Your task to perform on an android device: Show me productivity apps on the Play Store Image 0: 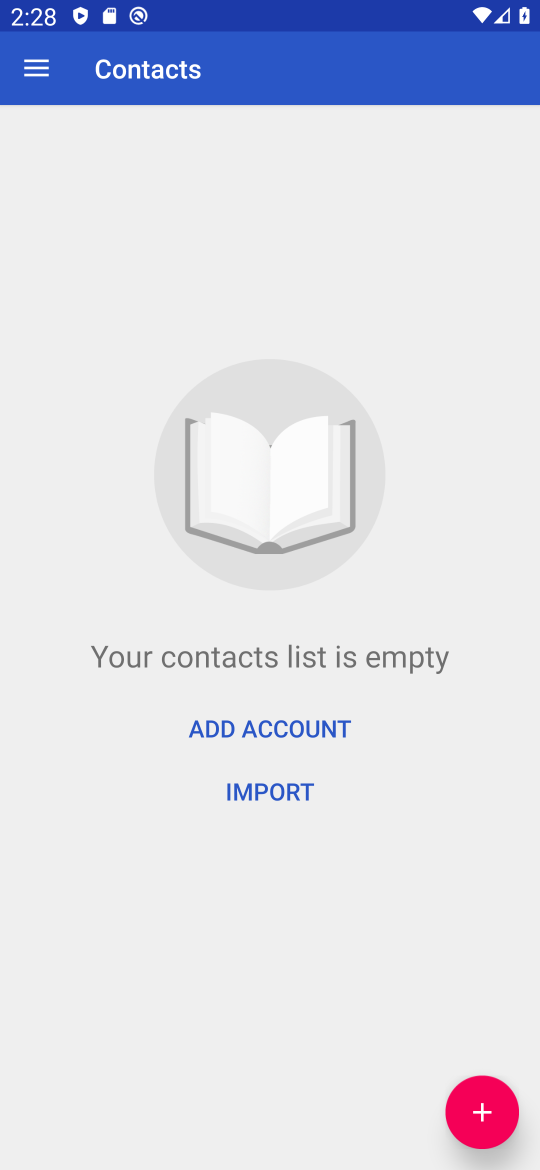
Step 0: press home button
Your task to perform on an android device: Show me productivity apps on the Play Store Image 1: 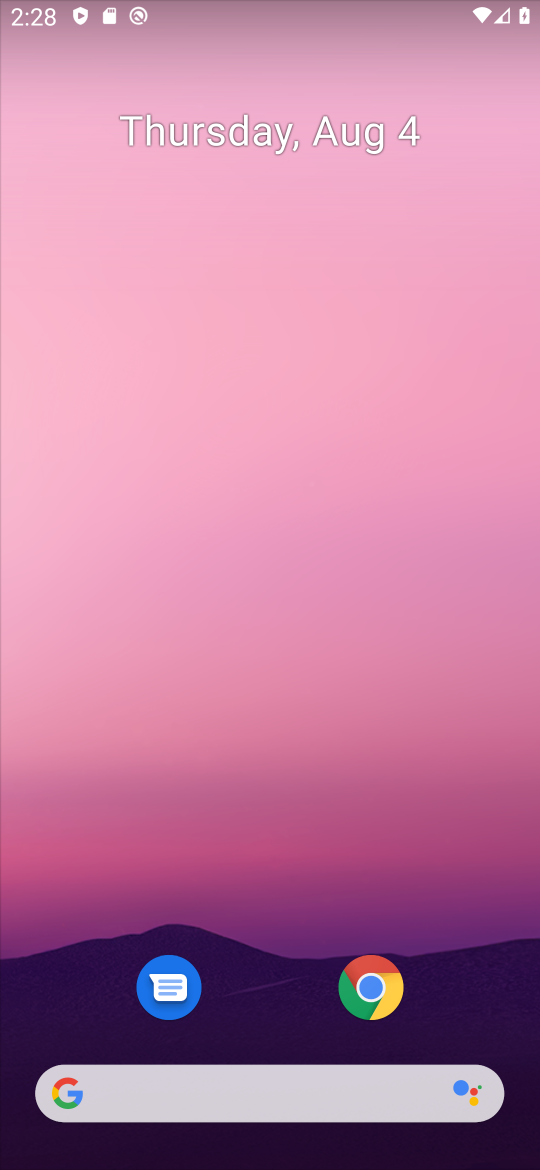
Step 1: drag from (448, 1011) to (307, 160)
Your task to perform on an android device: Show me productivity apps on the Play Store Image 2: 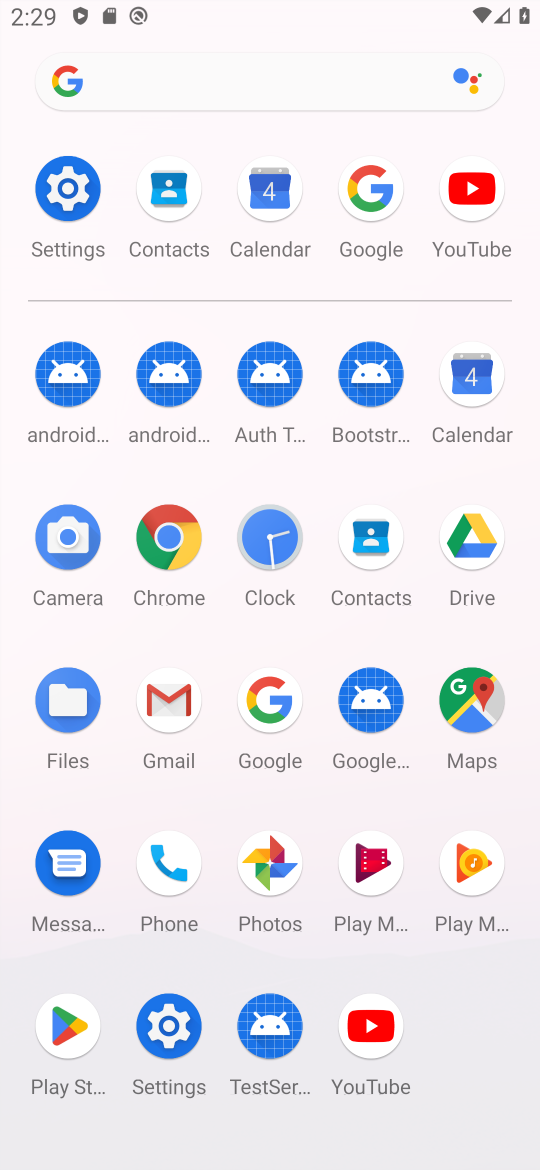
Step 2: click (72, 1044)
Your task to perform on an android device: Show me productivity apps on the Play Store Image 3: 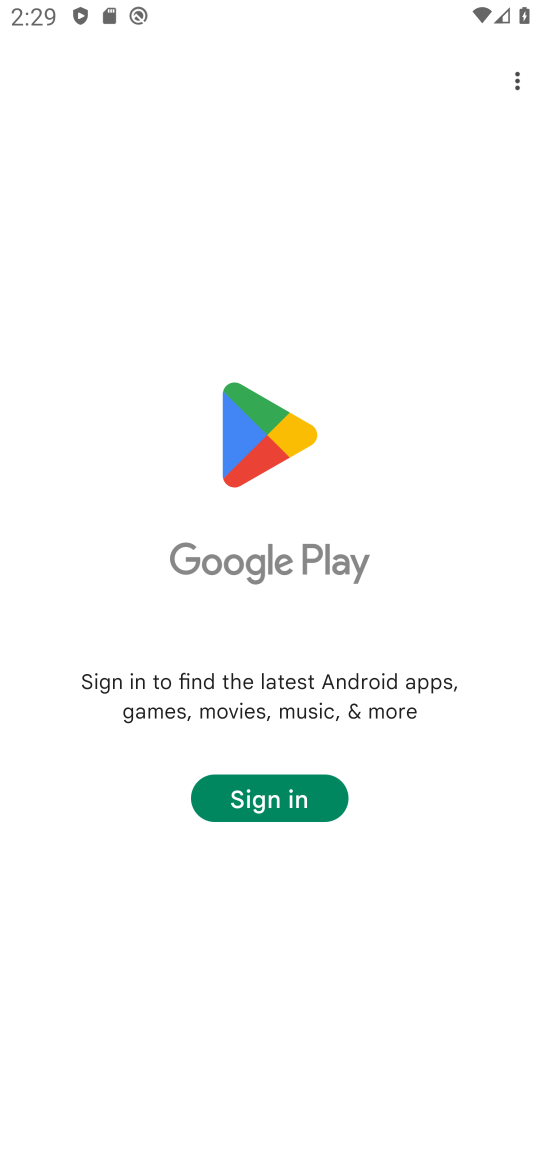
Step 3: task complete